Your task to perform on an android device: Open accessibility settings Image 0: 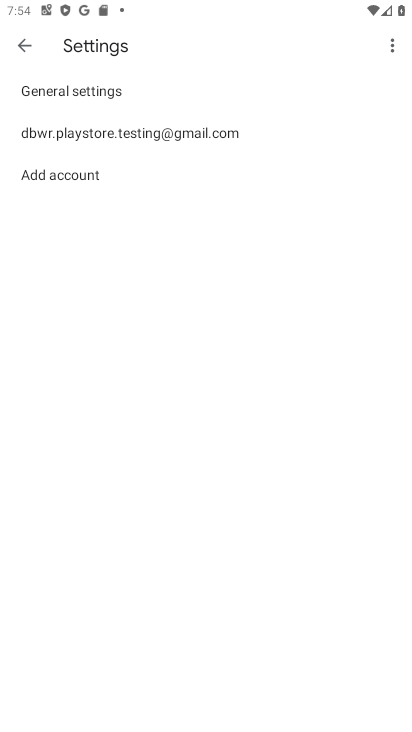
Step 0: press home button
Your task to perform on an android device: Open accessibility settings Image 1: 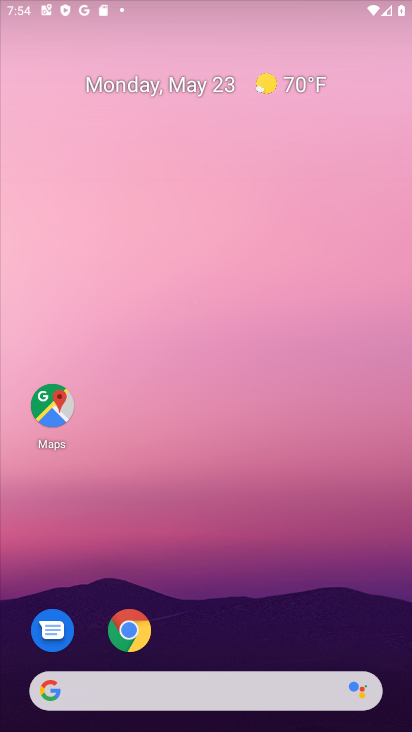
Step 1: drag from (301, 286) to (320, 96)
Your task to perform on an android device: Open accessibility settings Image 2: 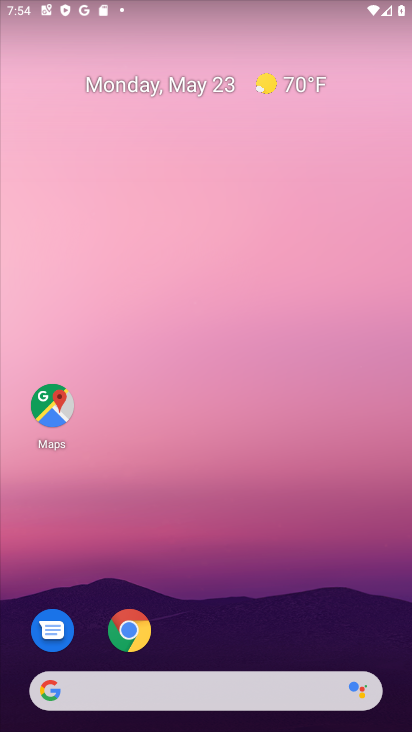
Step 2: drag from (243, 535) to (296, 101)
Your task to perform on an android device: Open accessibility settings Image 3: 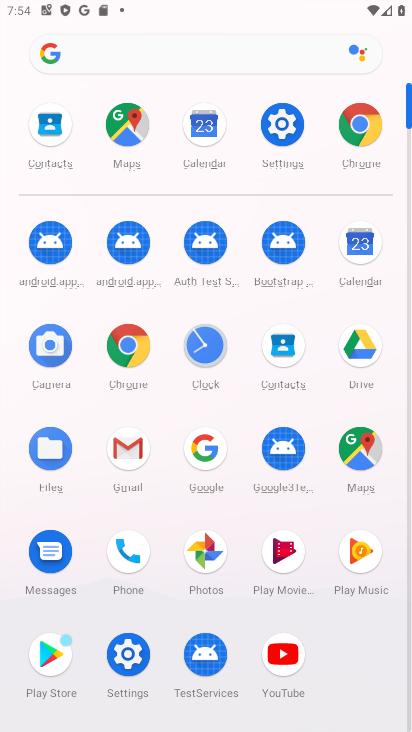
Step 3: click (293, 129)
Your task to perform on an android device: Open accessibility settings Image 4: 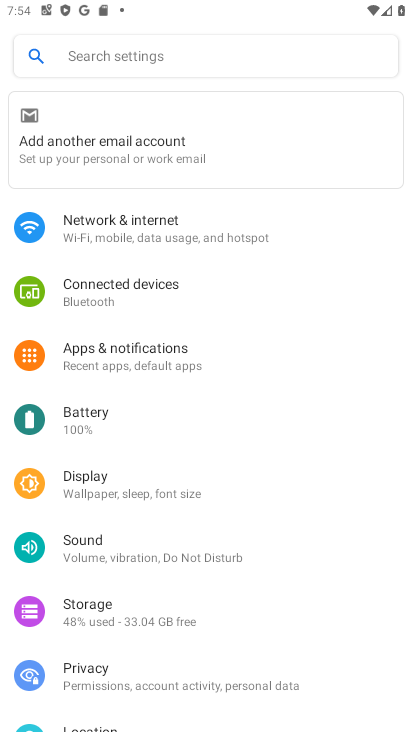
Step 4: drag from (218, 630) to (250, 108)
Your task to perform on an android device: Open accessibility settings Image 5: 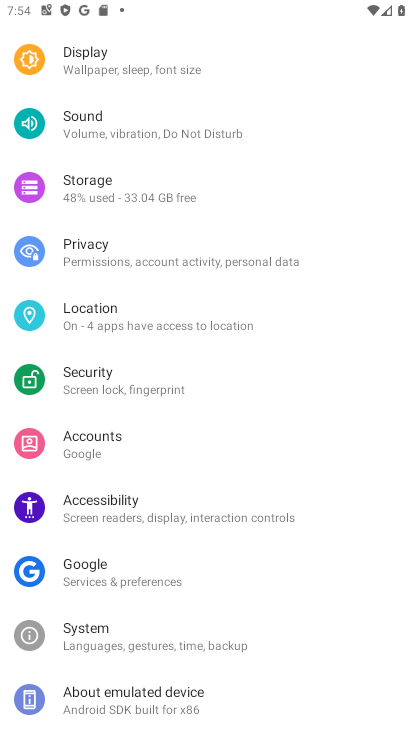
Step 5: click (159, 512)
Your task to perform on an android device: Open accessibility settings Image 6: 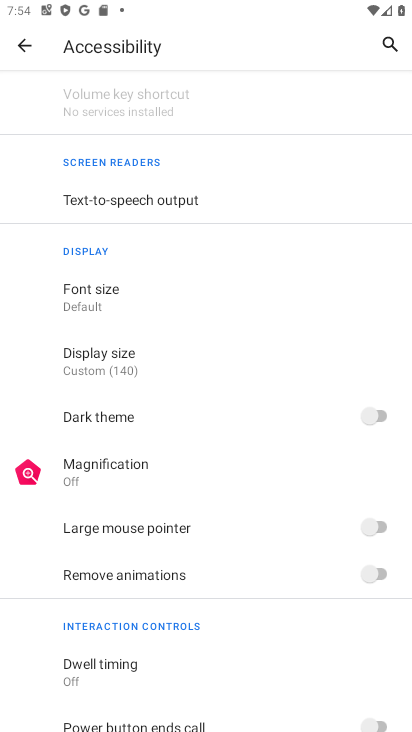
Step 6: task complete